Your task to perform on an android device: Show me popular games on the Play Store Image 0: 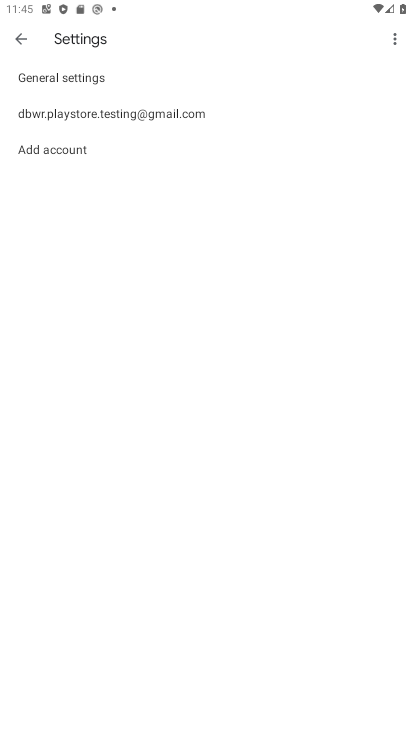
Step 0: press home button
Your task to perform on an android device: Show me popular games on the Play Store Image 1: 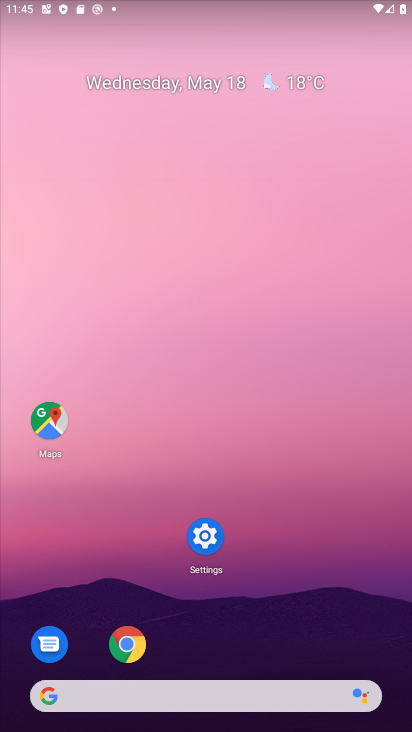
Step 1: drag from (283, 608) to (348, 63)
Your task to perform on an android device: Show me popular games on the Play Store Image 2: 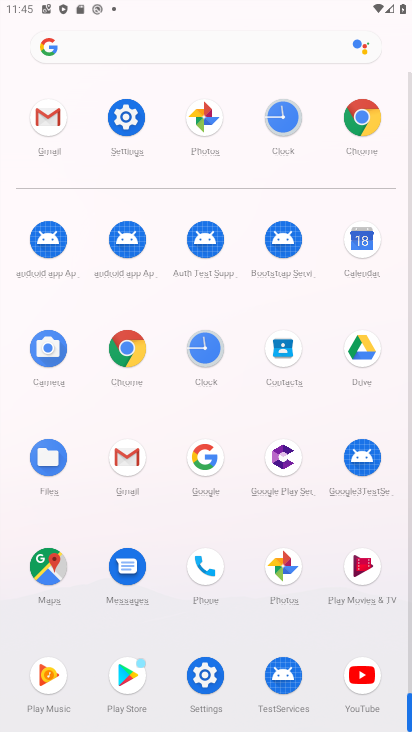
Step 2: click (127, 675)
Your task to perform on an android device: Show me popular games on the Play Store Image 3: 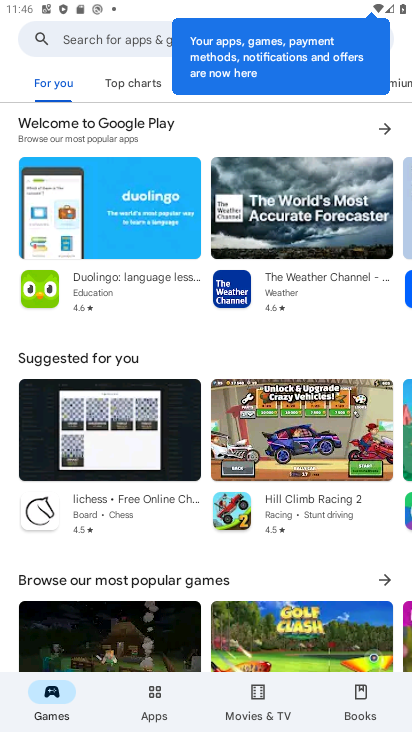
Step 3: task complete